Your task to perform on an android device: open a new tab in the chrome app Image 0: 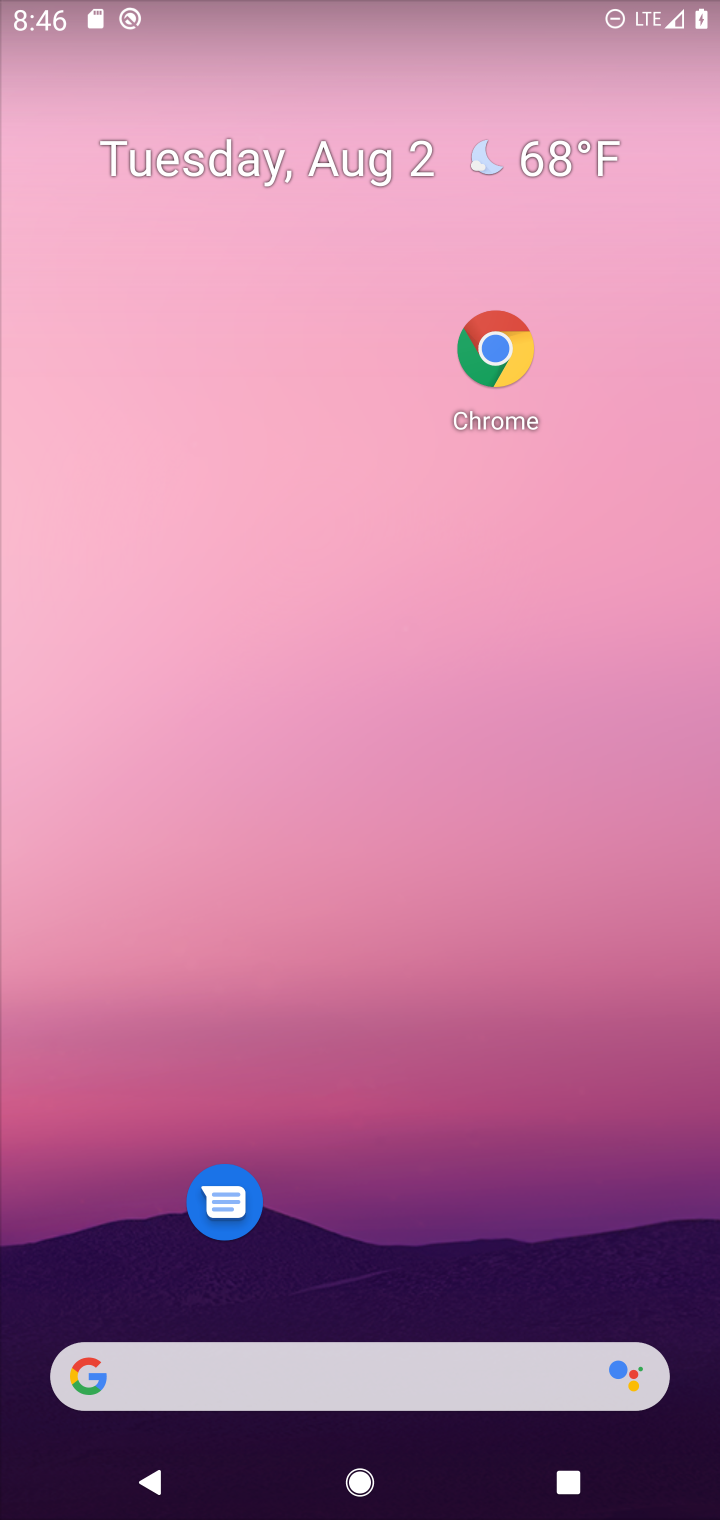
Step 0: click (495, 347)
Your task to perform on an android device: open a new tab in the chrome app Image 1: 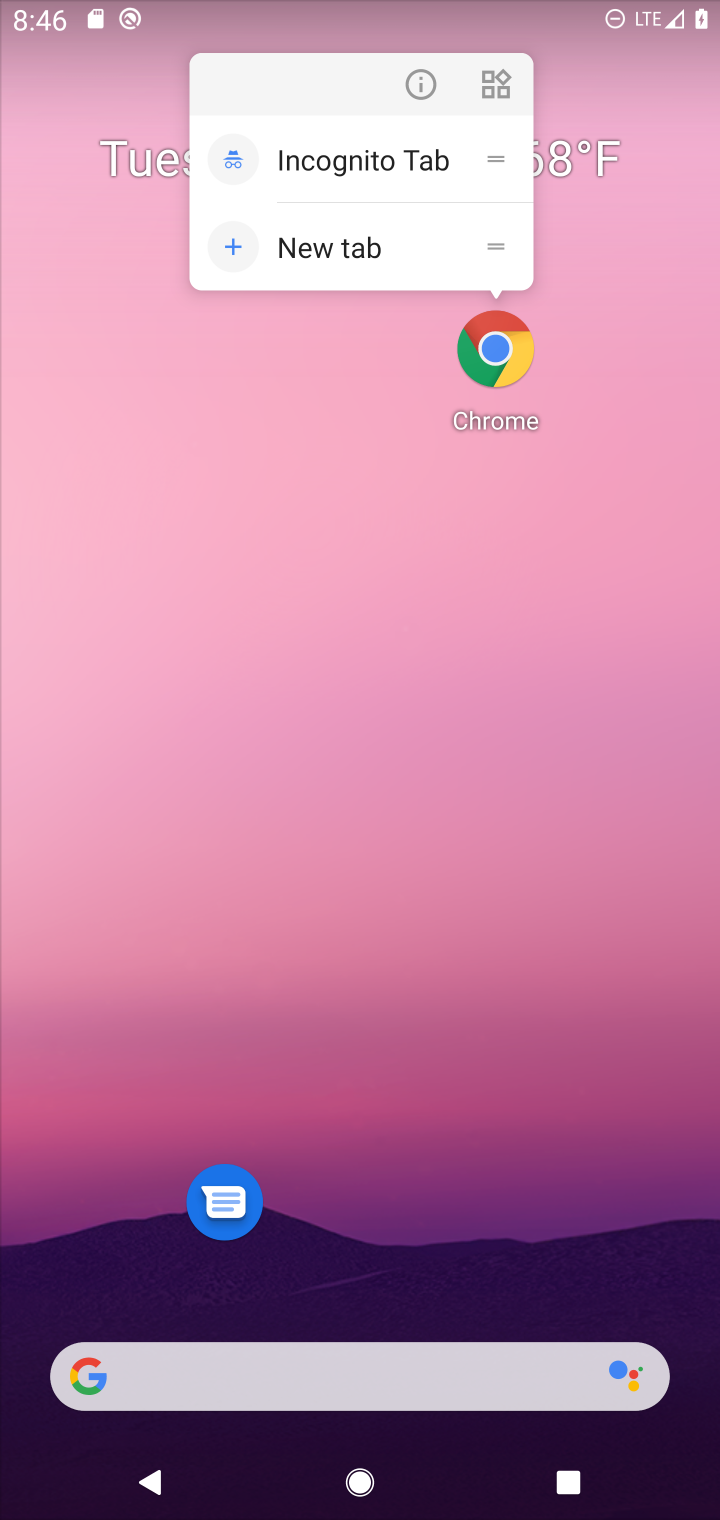
Step 1: click (495, 358)
Your task to perform on an android device: open a new tab in the chrome app Image 2: 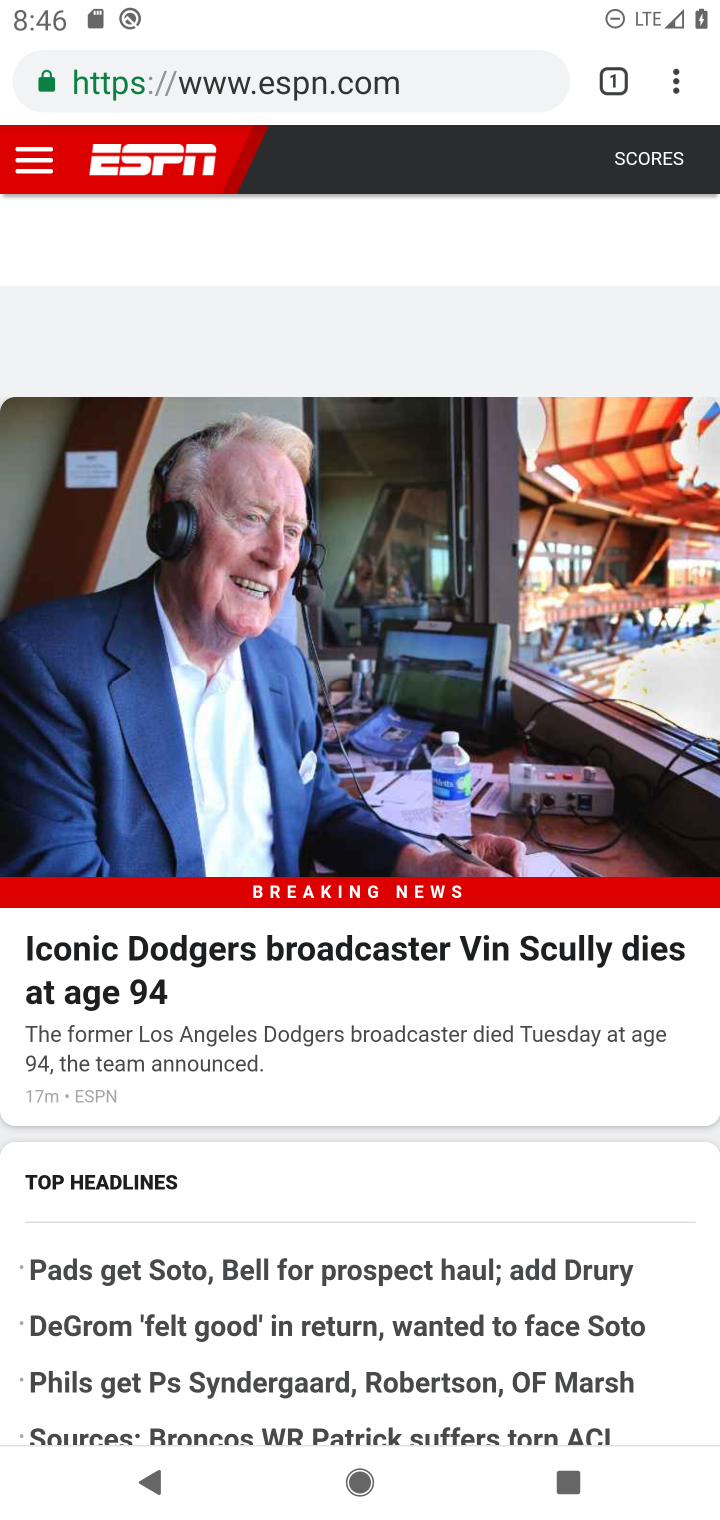
Step 2: click (679, 78)
Your task to perform on an android device: open a new tab in the chrome app Image 3: 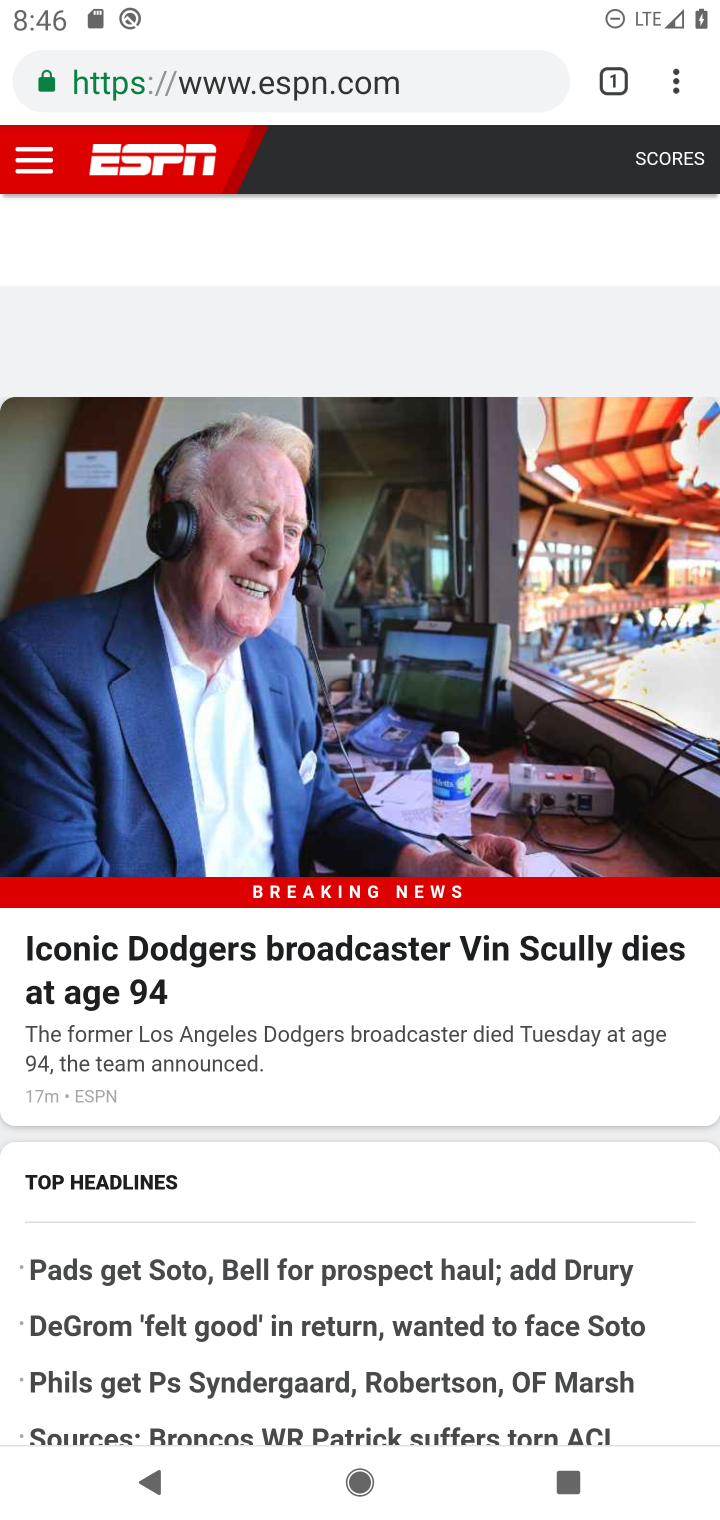
Step 3: click (678, 83)
Your task to perform on an android device: open a new tab in the chrome app Image 4: 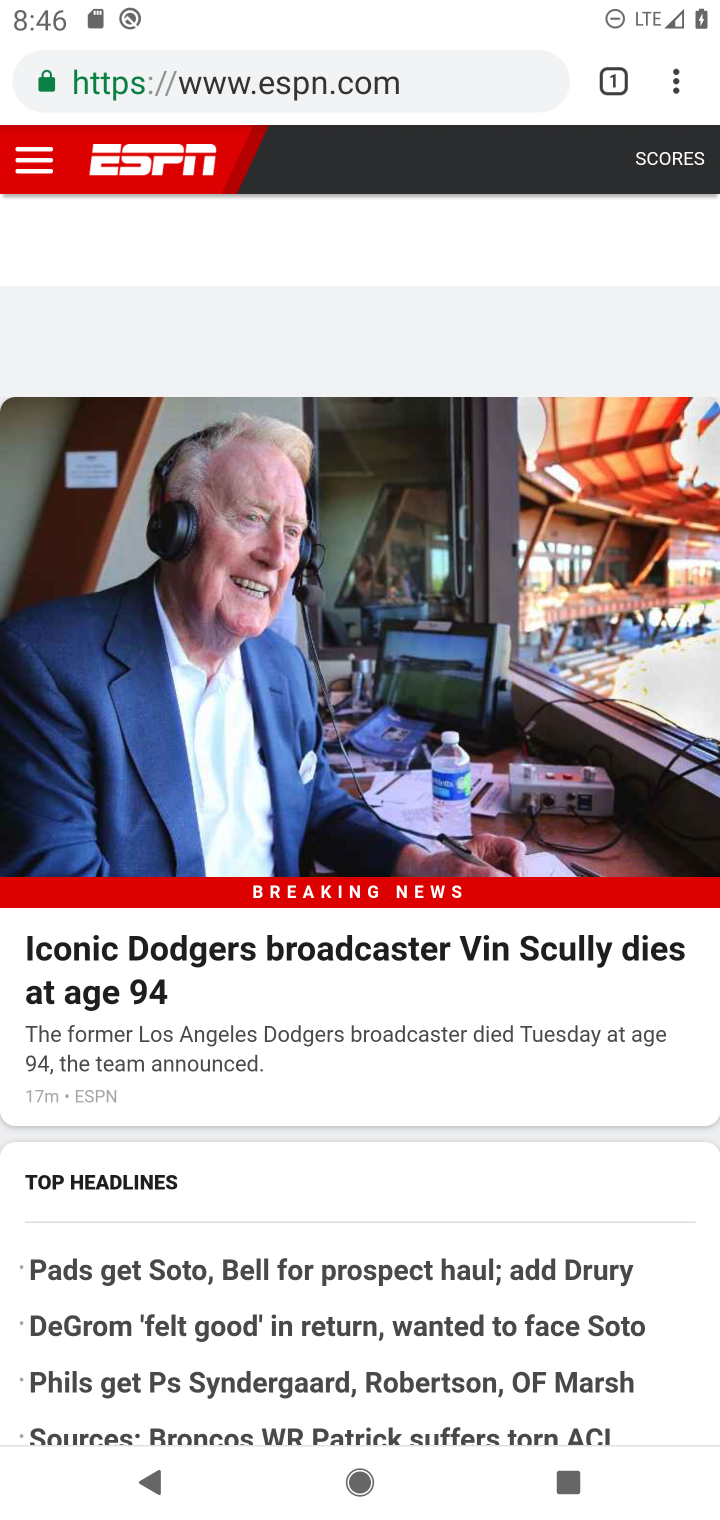
Step 4: click (681, 82)
Your task to perform on an android device: open a new tab in the chrome app Image 5: 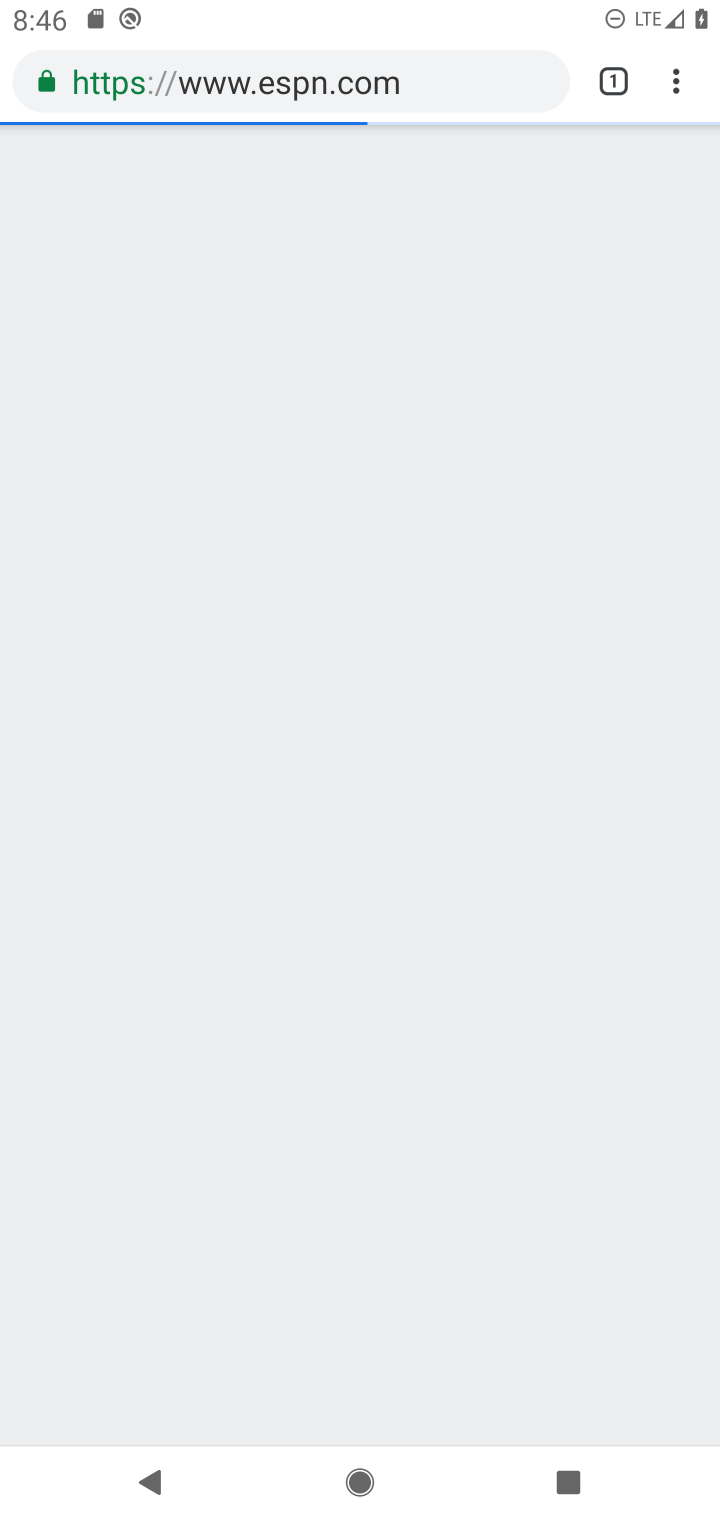
Step 5: click (681, 82)
Your task to perform on an android device: open a new tab in the chrome app Image 6: 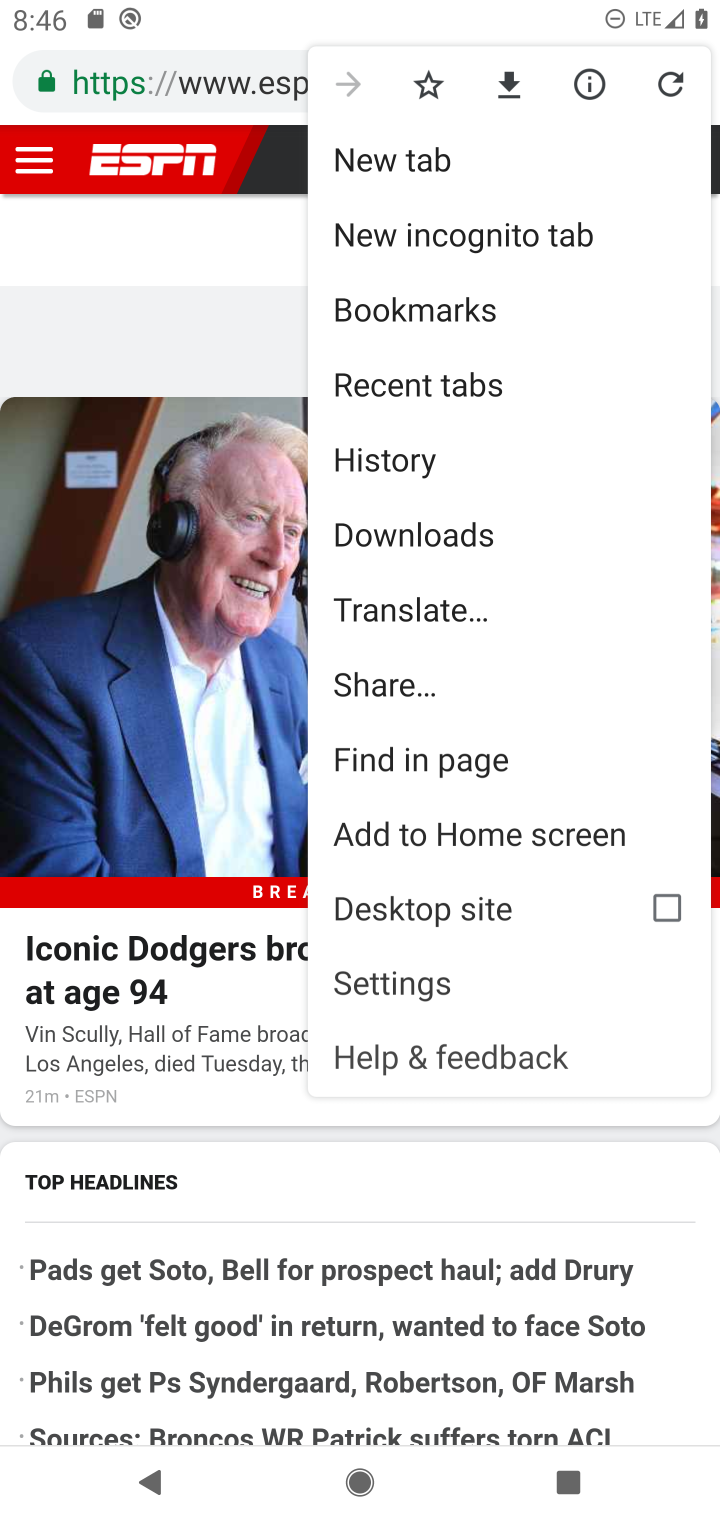
Step 6: click (681, 82)
Your task to perform on an android device: open a new tab in the chrome app Image 7: 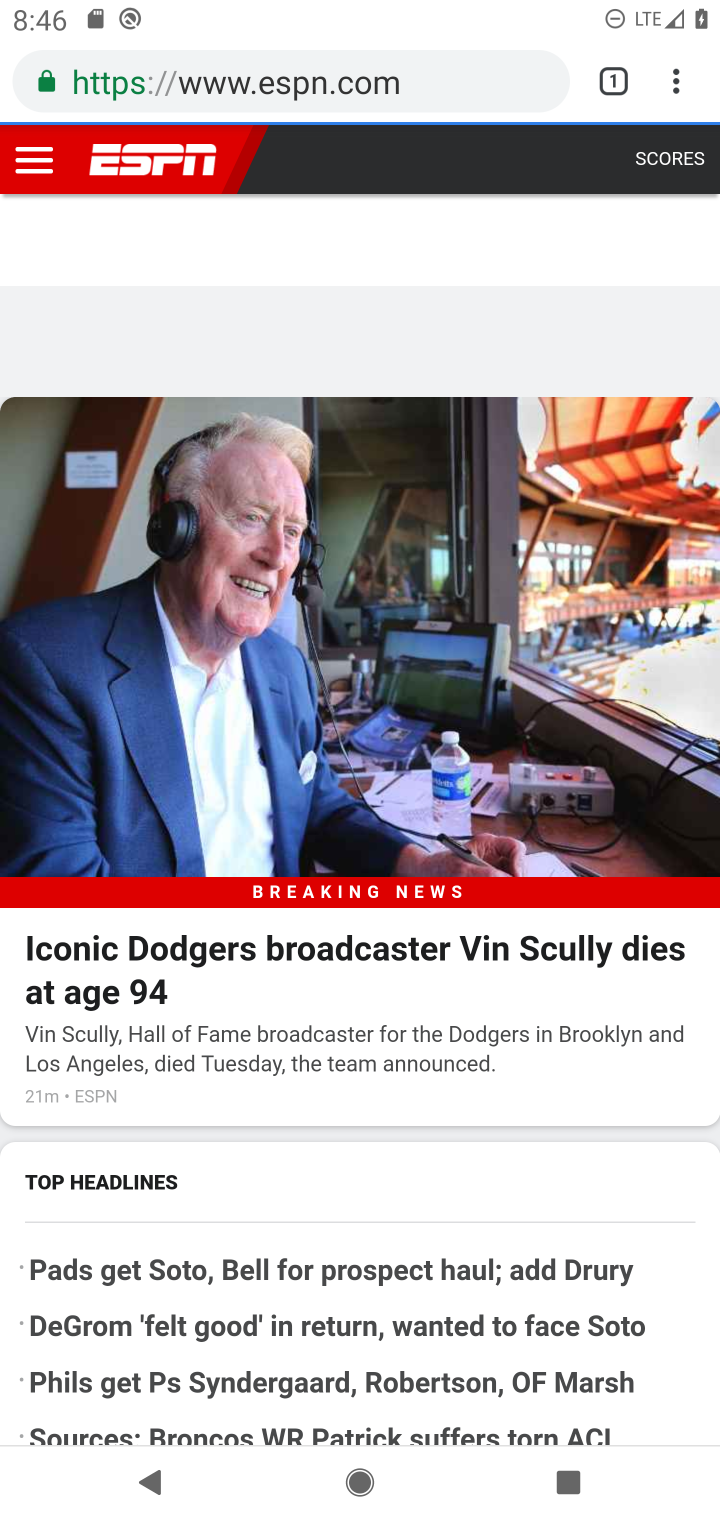
Step 7: click (678, 75)
Your task to perform on an android device: open a new tab in the chrome app Image 8: 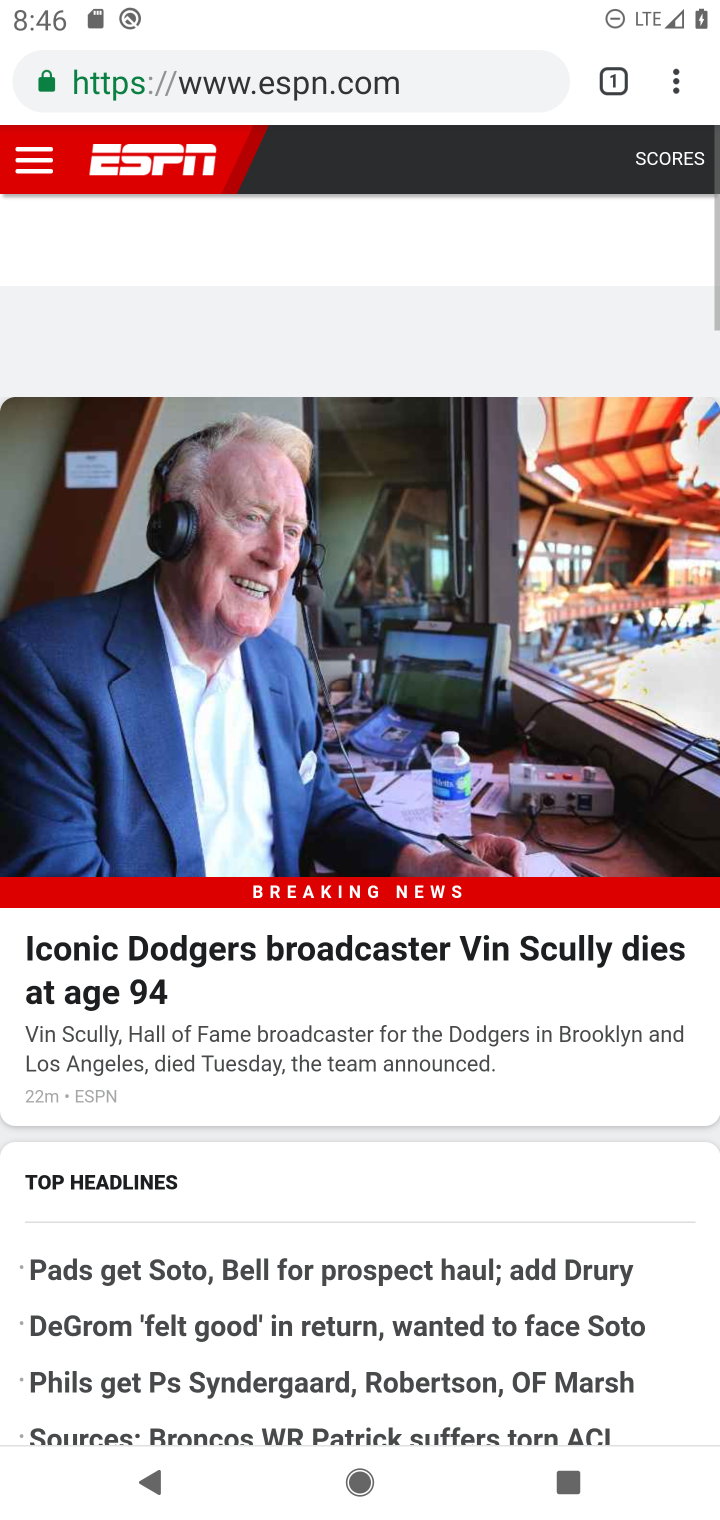
Step 8: click (681, 75)
Your task to perform on an android device: open a new tab in the chrome app Image 9: 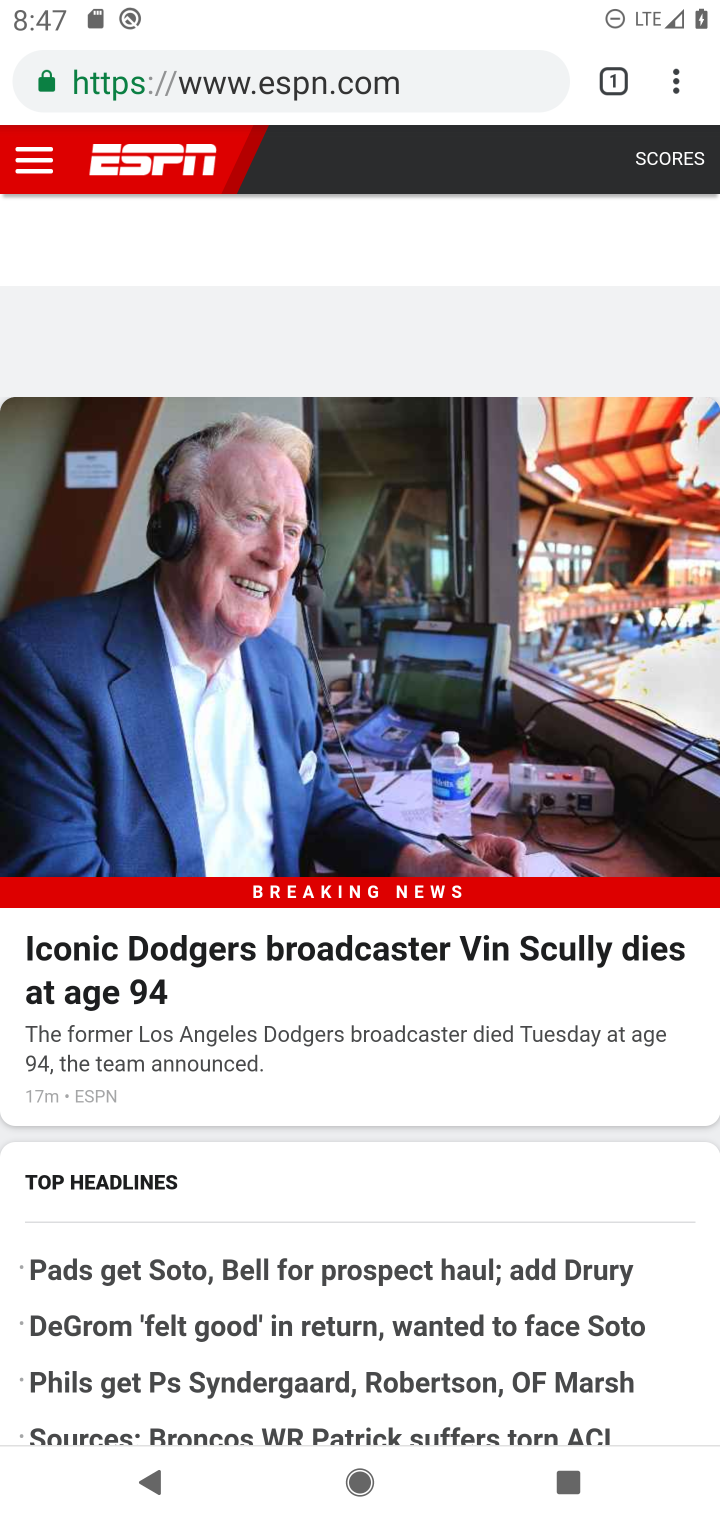
Step 9: click (681, 91)
Your task to perform on an android device: open a new tab in the chrome app Image 10: 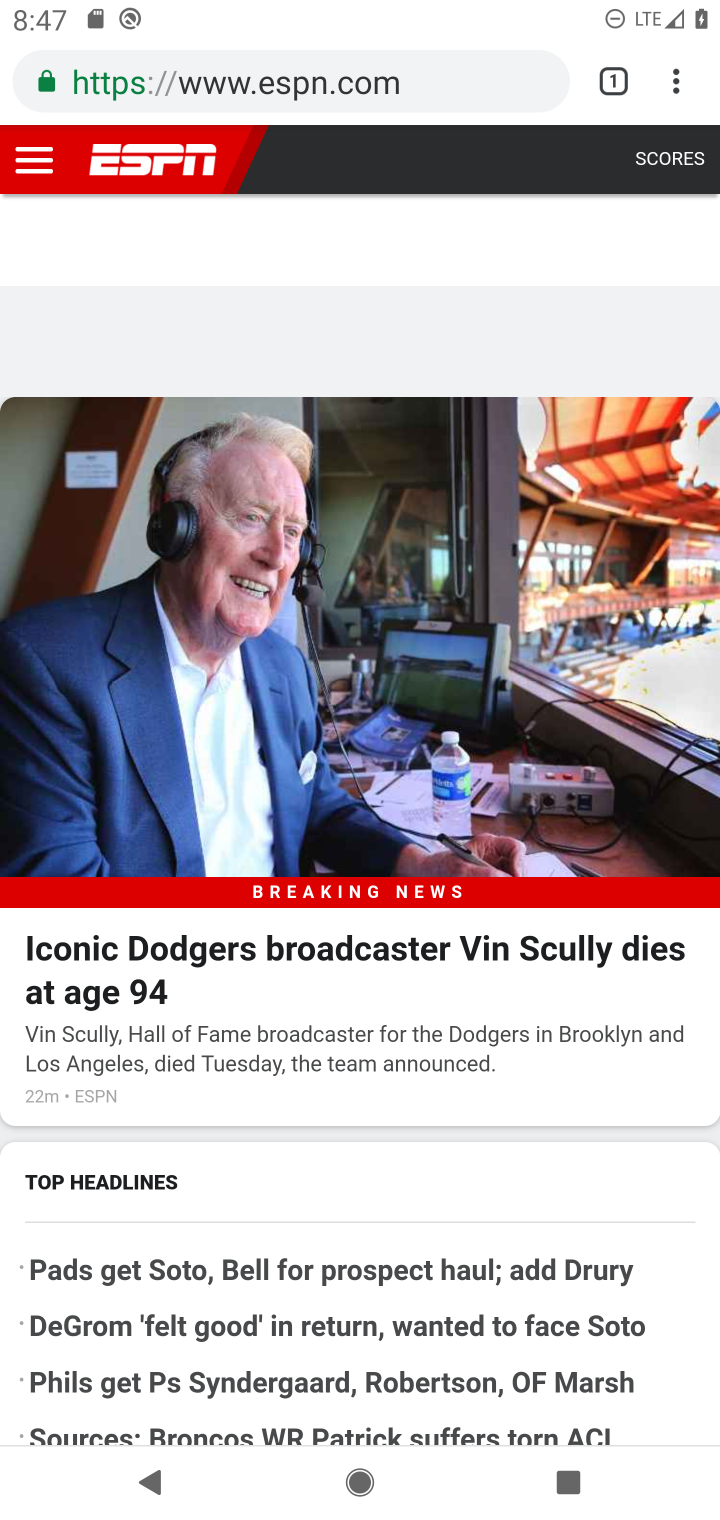
Step 10: click (679, 80)
Your task to perform on an android device: open a new tab in the chrome app Image 11: 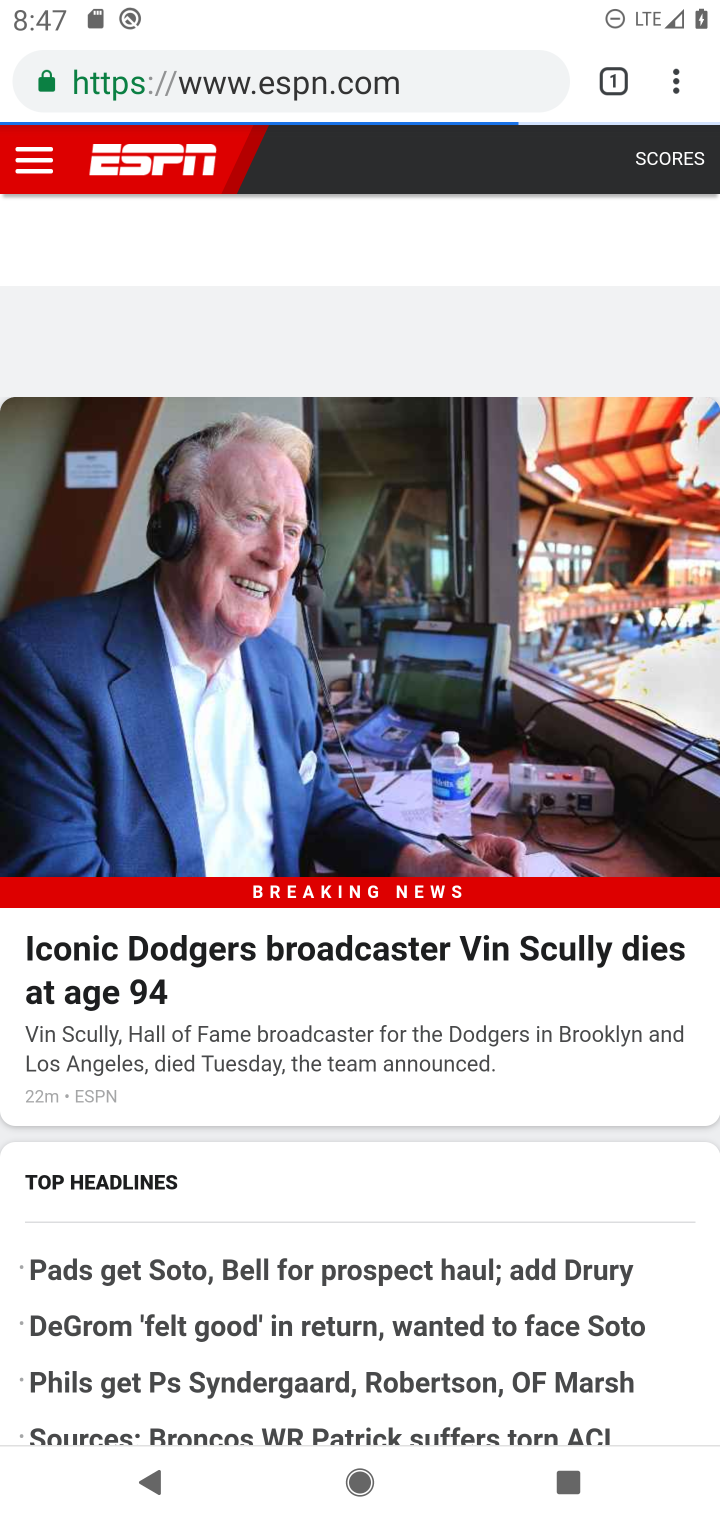
Step 11: click (679, 80)
Your task to perform on an android device: open a new tab in the chrome app Image 12: 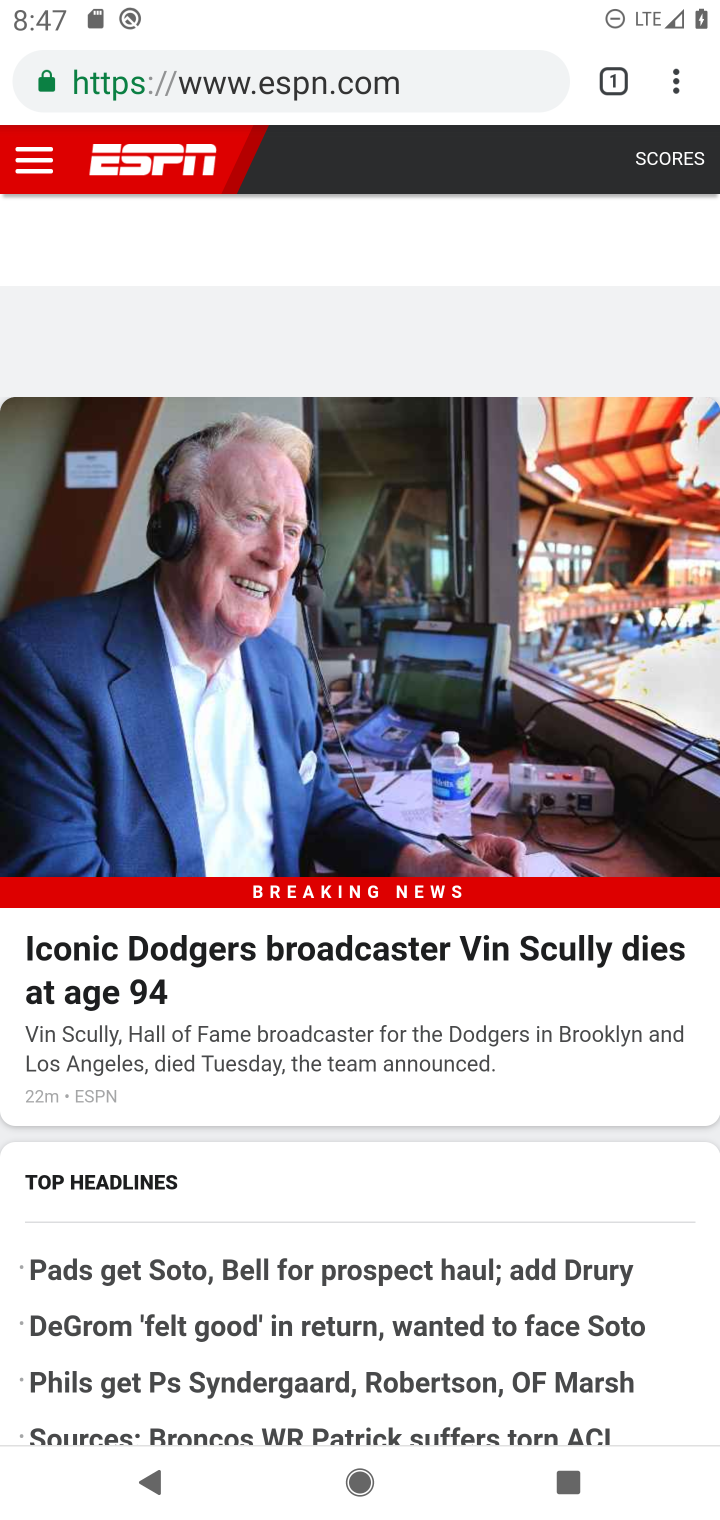
Step 12: click (674, 79)
Your task to perform on an android device: open a new tab in the chrome app Image 13: 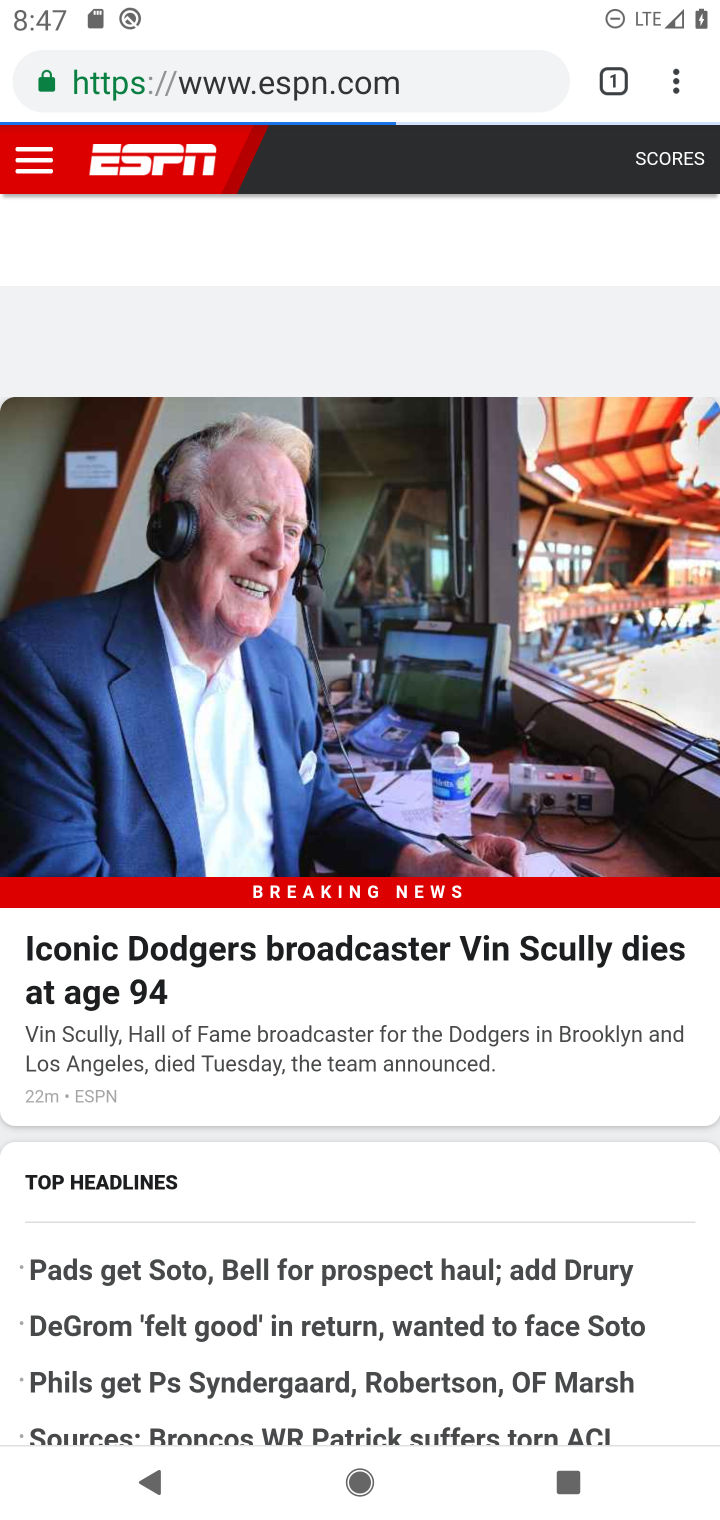
Step 13: click (674, 80)
Your task to perform on an android device: open a new tab in the chrome app Image 14: 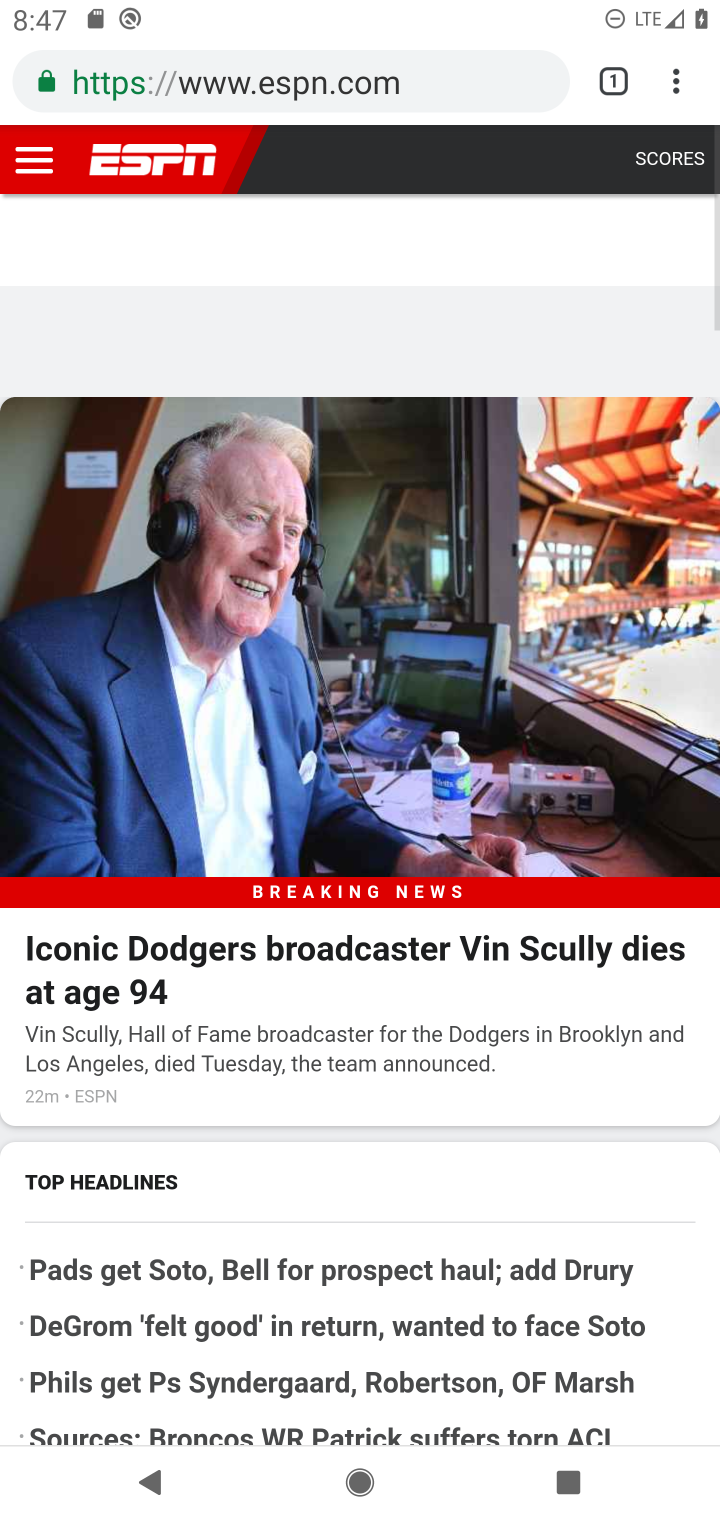
Step 14: task complete